Your task to perform on an android device: visit the assistant section in the google photos Image 0: 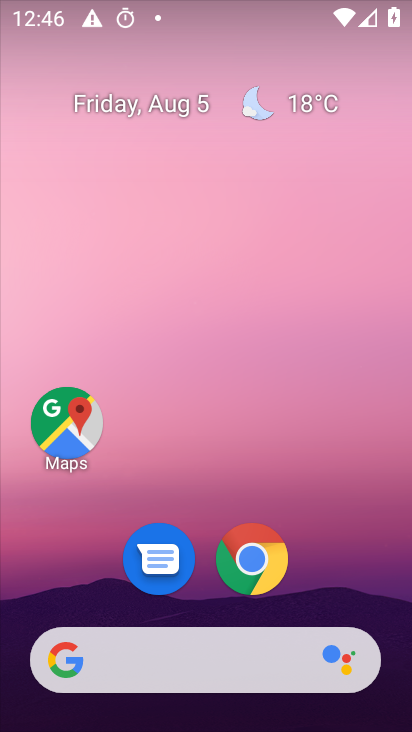
Step 0: drag from (35, 699) to (147, 320)
Your task to perform on an android device: visit the assistant section in the google photos Image 1: 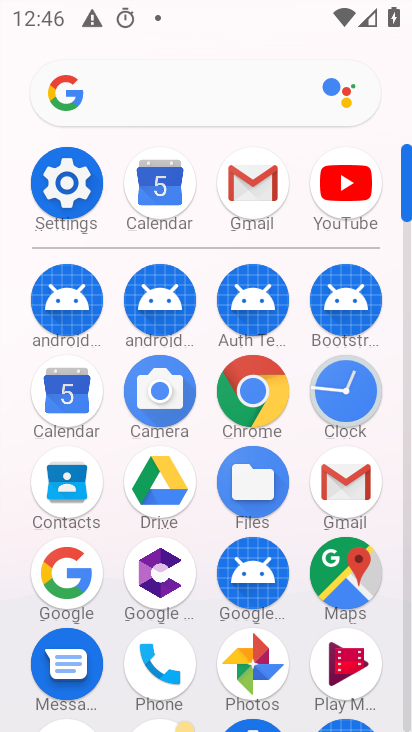
Step 1: click (238, 658)
Your task to perform on an android device: visit the assistant section in the google photos Image 2: 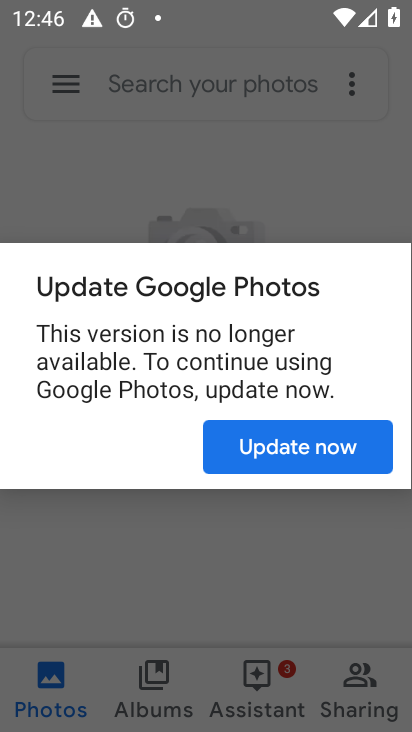
Step 2: click (295, 437)
Your task to perform on an android device: visit the assistant section in the google photos Image 3: 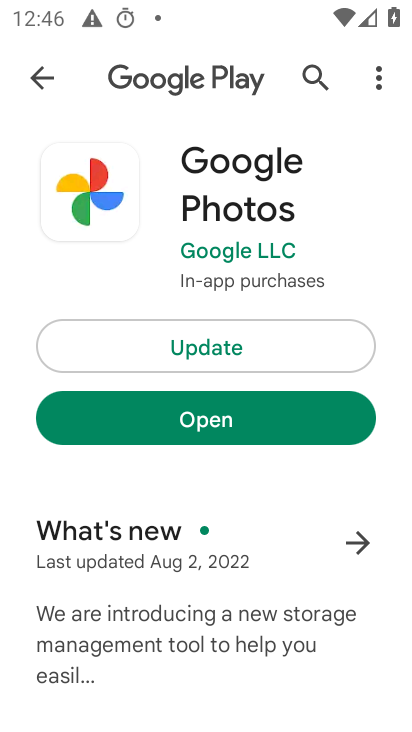
Step 3: click (187, 431)
Your task to perform on an android device: visit the assistant section in the google photos Image 4: 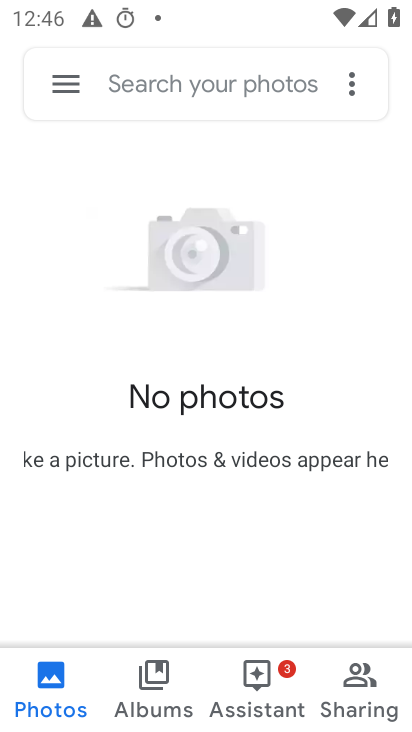
Step 4: click (290, 689)
Your task to perform on an android device: visit the assistant section in the google photos Image 5: 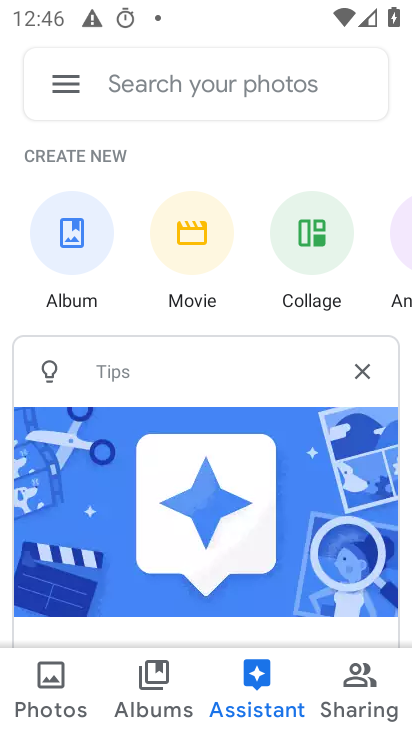
Step 5: task complete